Your task to perform on an android device: Open Google Chrome and open the bookmarks view Image 0: 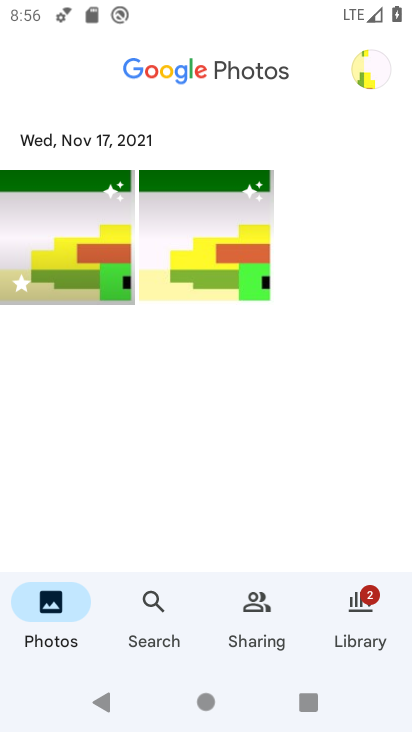
Step 0: press home button
Your task to perform on an android device: Open Google Chrome and open the bookmarks view Image 1: 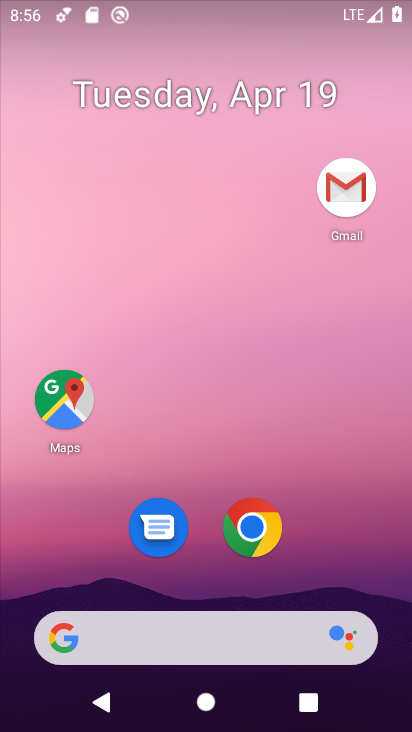
Step 1: drag from (373, 516) to (351, 111)
Your task to perform on an android device: Open Google Chrome and open the bookmarks view Image 2: 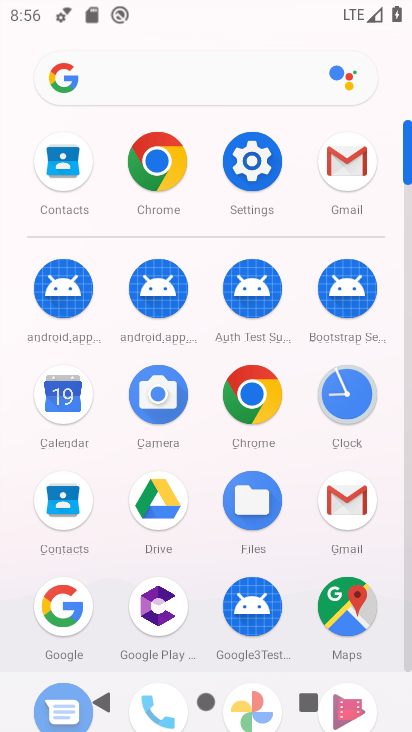
Step 2: click (257, 410)
Your task to perform on an android device: Open Google Chrome and open the bookmarks view Image 3: 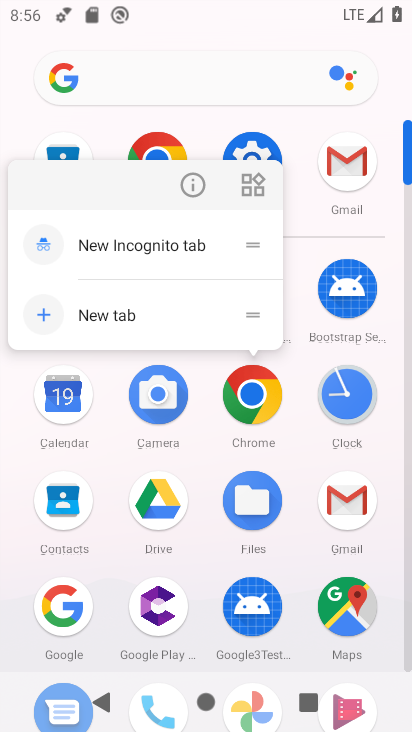
Step 3: click (263, 415)
Your task to perform on an android device: Open Google Chrome and open the bookmarks view Image 4: 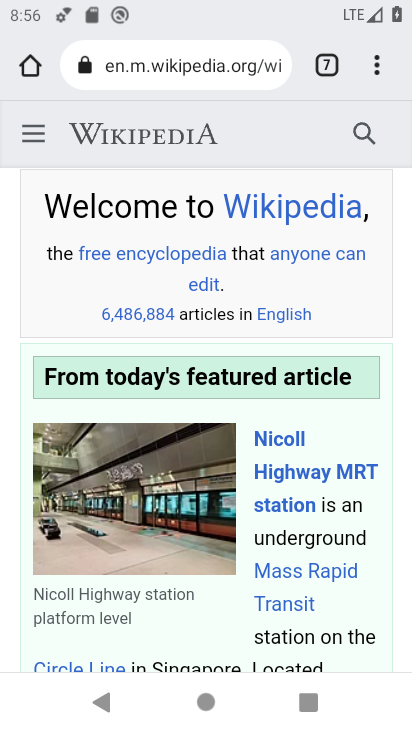
Step 4: click (374, 101)
Your task to perform on an android device: Open Google Chrome and open the bookmarks view Image 5: 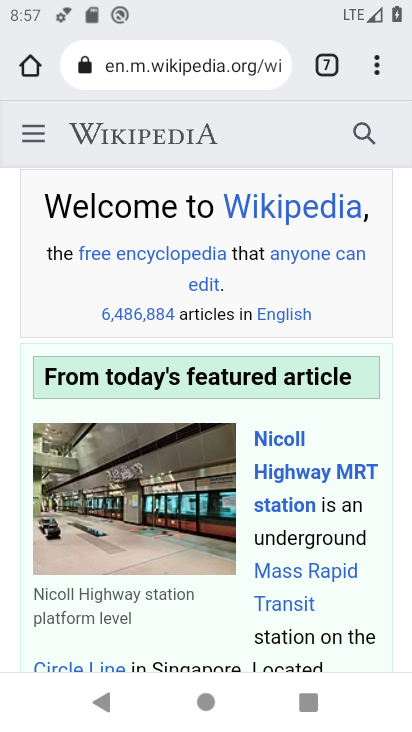
Step 5: click (381, 89)
Your task to perform on an android device: Open Google Chrome and open the bookmarks view Image 6: 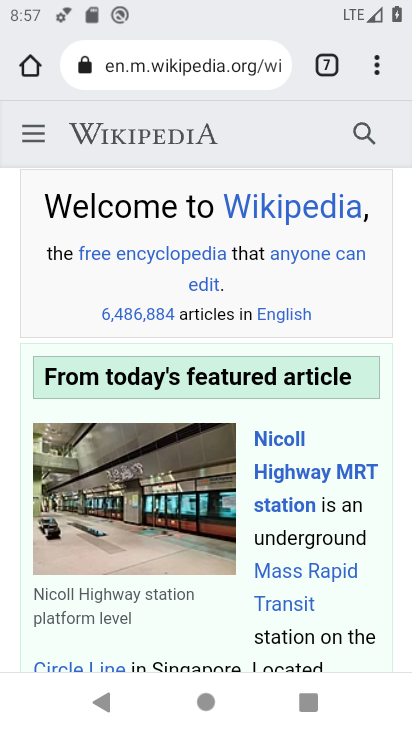
Step 6: click (406, 56)
Your task to perform on an android device: Open Google Chrome and open the bookmarks view Image 7: 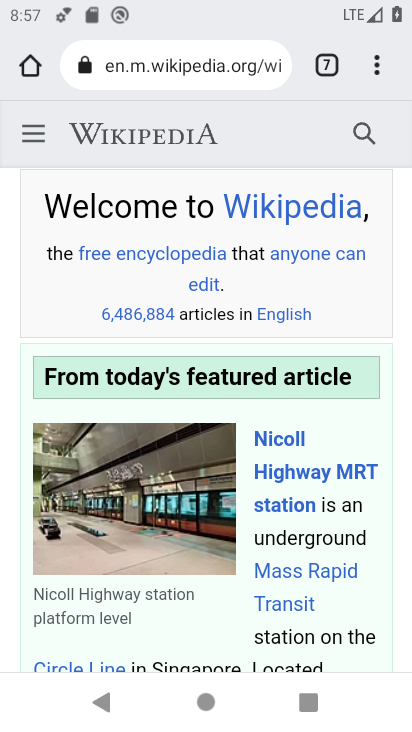
Step 7: click (397, 53)
Your task to perform on an android device: Open Google Chrome and open the bookmarks view Image 8: 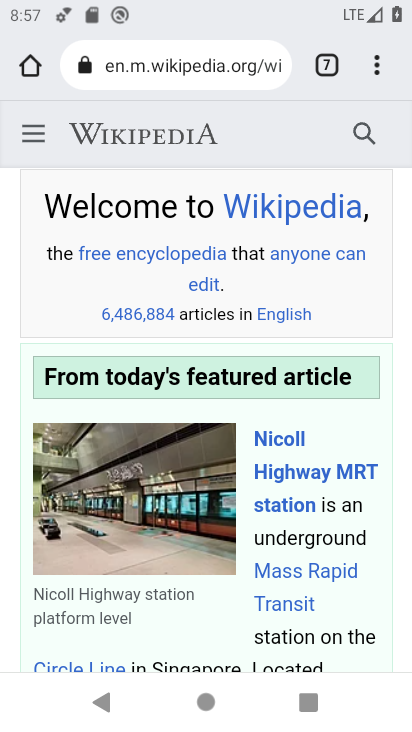
Step 8: click (377, 97)
Your task to perform on an android device: Open Google Chrome and open the bookmarks view Image 9: 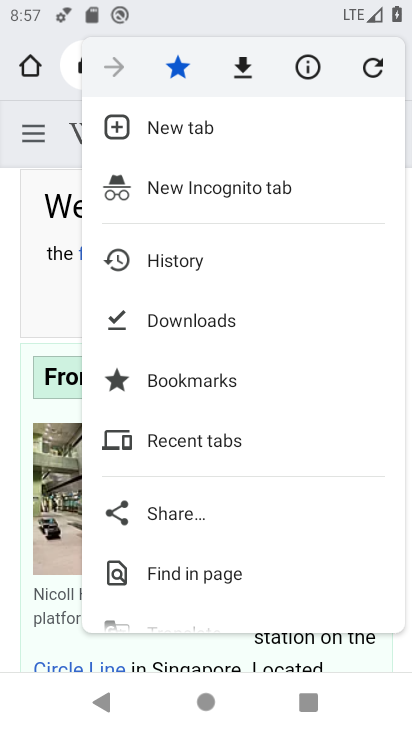
Step 9: click (234, 389)
Your task to perform on an android device: Open Google Chrome and open the bookmarks view Image 10: 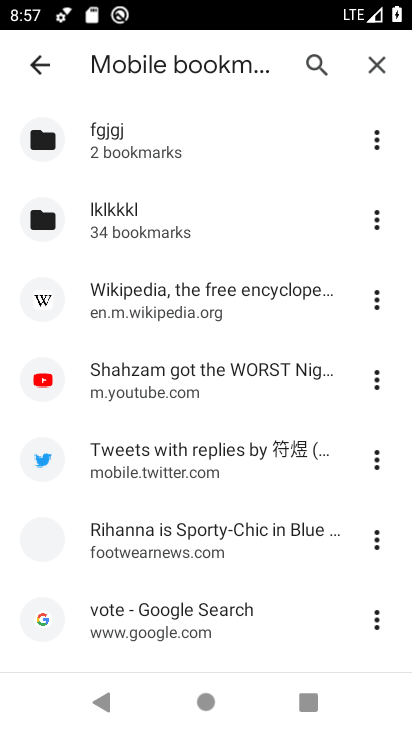
Step 10: task complete